Your task to perform on an android device: Is it going to rain tomorrow? Image 0: 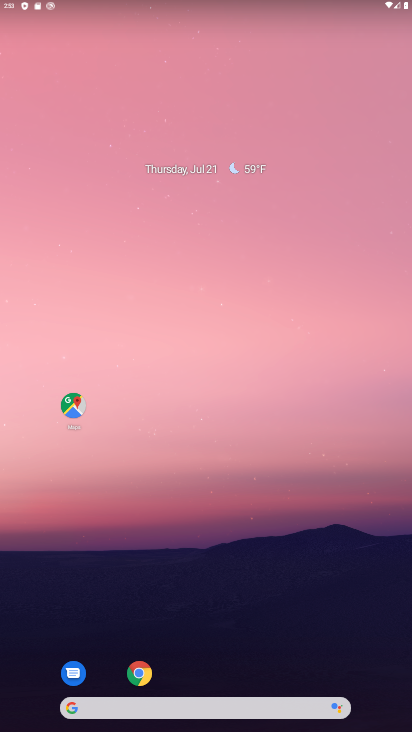
Step 0: click (239, 170)
Your task to perform on an android device: Is it going to rain tomorrow? Image 1: 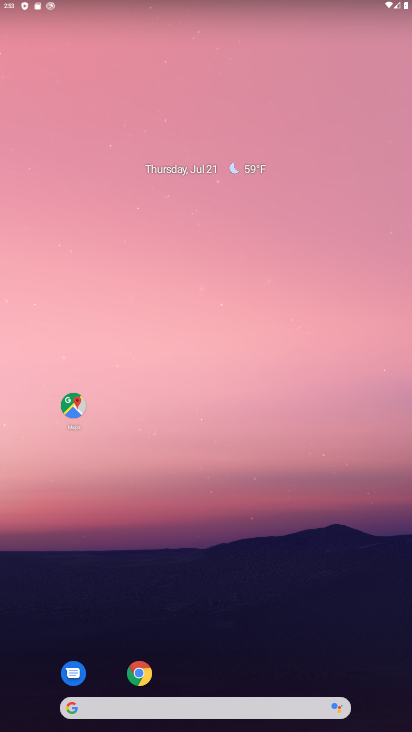
Step 1: click (128, 709)
Your task to perform on an android device: Is it going to rain tomorrow? Image 2: 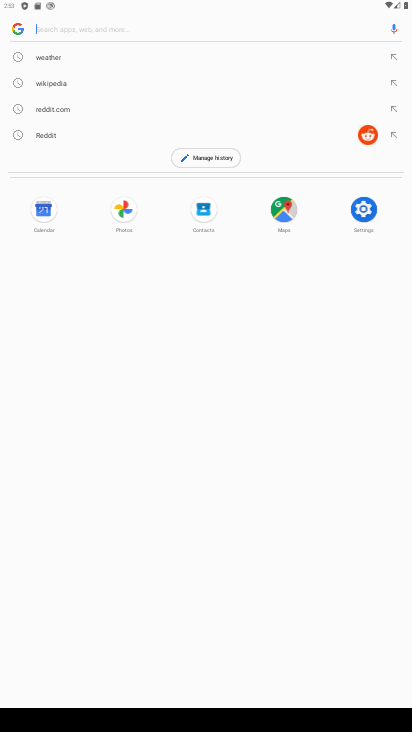
Step 2: click (37, 52)
Your task to perform on an android device: Is it going to rain tomorrow? Image 3: 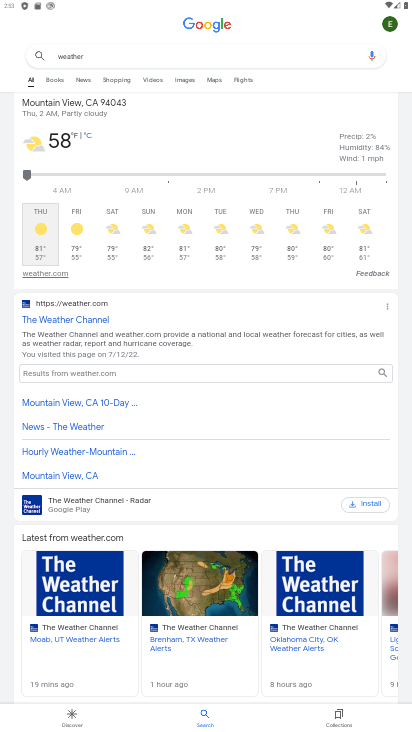
Step 3: task complete